Your task to perform on an android device: Is it going to rain tomorrow? Image 0: 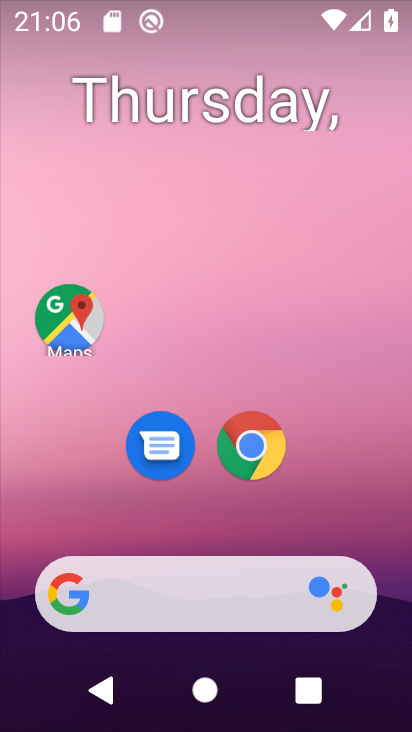
Step 0: click (301, 455)
Your task to perform on an android device: Is it going to rain tomorrow? Image 1: 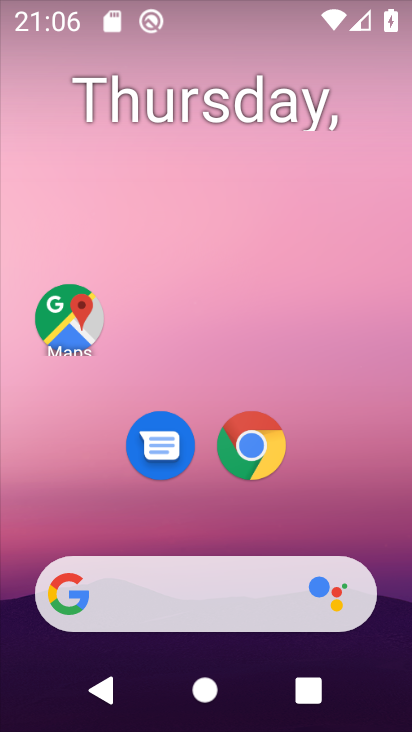
Step 1: click (241, 453)
Your task to perform on an android device: Is it going to rain tomorrow? Image 2: 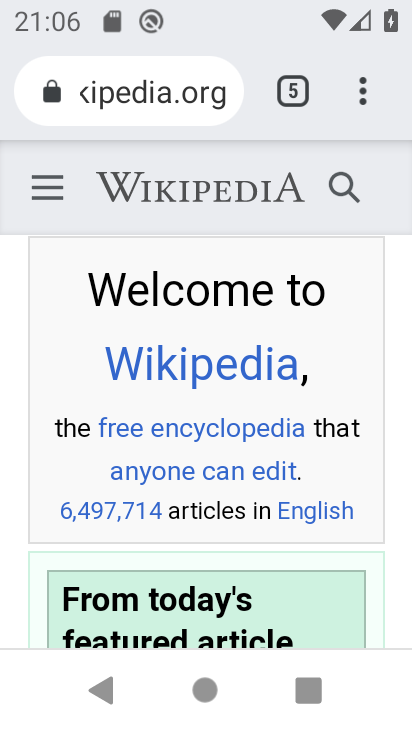
Step 2: click (281, 95)
Your task to perform on an android device: Is it going to rain tomorrow? Image 3: 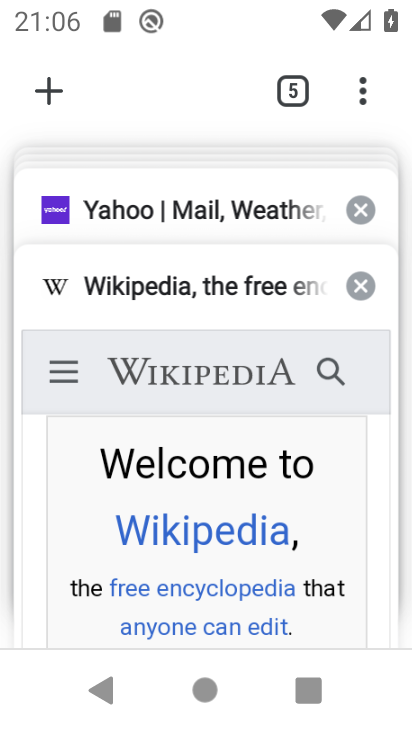
Step 3: click (49, 93)
Your task to perform on an android device: Is it going to rain tomorrow? Image 4: 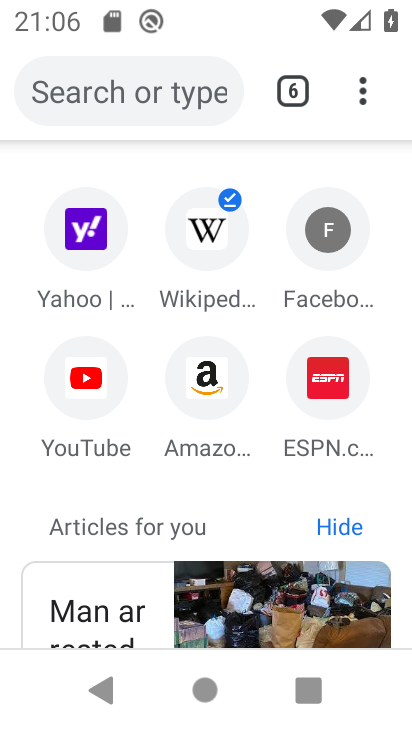
Step 4: click (145, 95)
Your task to perform on an android device: Is it going to rain tomorrow? Image 5: 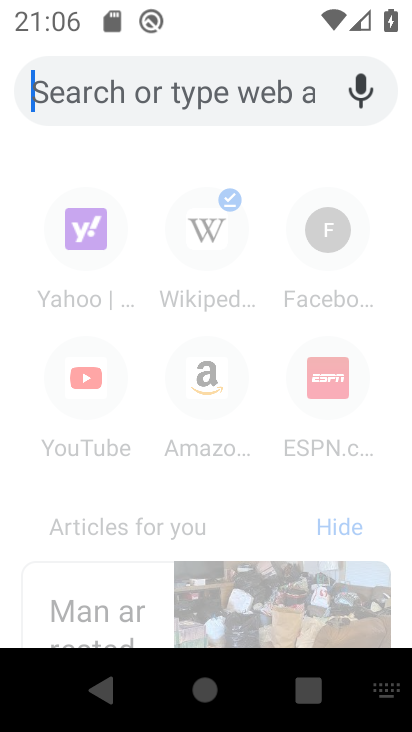
Step 5: type "is it going to rain tomorrow?"
Your task to perform on an android device: Is it going to rain tomorrow? Image 6: 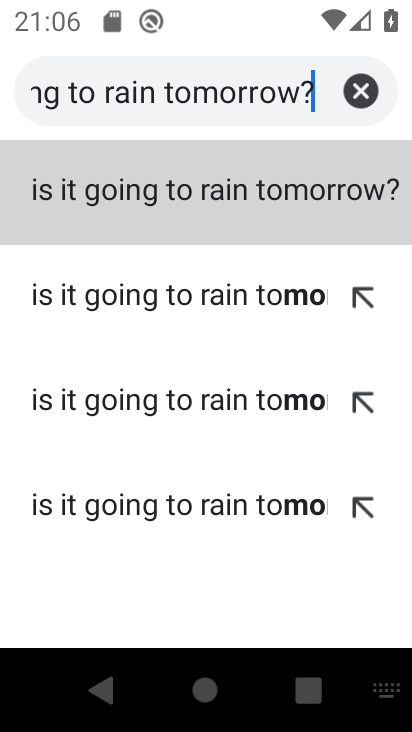
Step 6: click (148, 213)
Your task to perform on an android device: Is it going to rain tomorrow? Image 7: 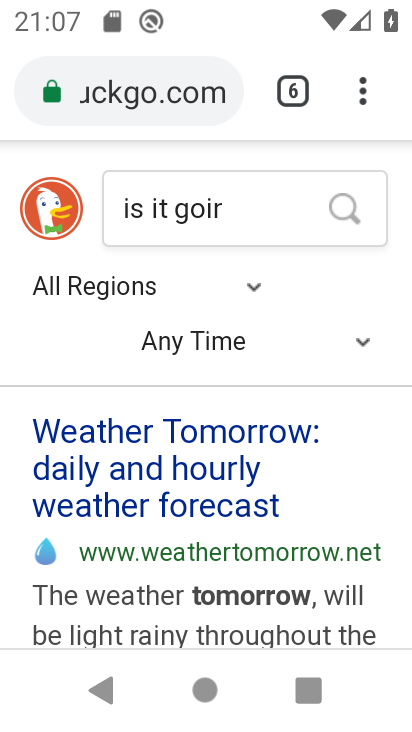
Step 7: drag from (255, 569) to (226, 234)
Your task to perform on an android device: Is it going to rain tomorrow? Image 8: 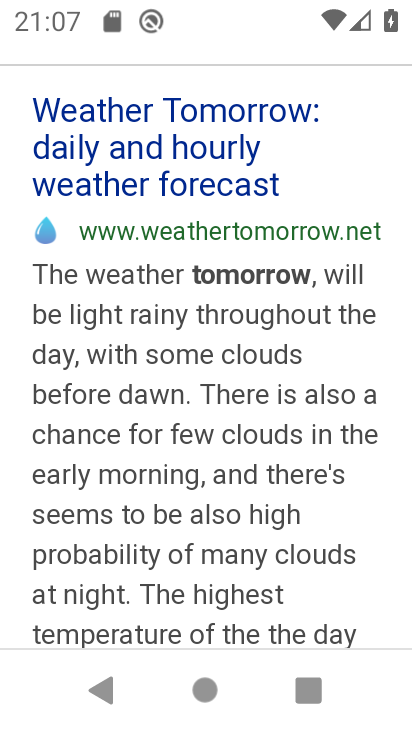
Step 8: click (159, 183)
Your task to perform on an android device: Is it going to rain tomorrow? Image 9: 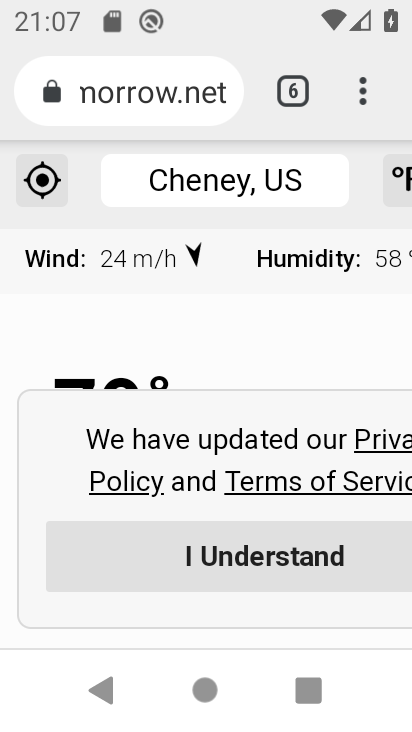
Step 9: click (223, 546)
Your task to perform on an android device: Is it going to rain tomorrow? Image 10: 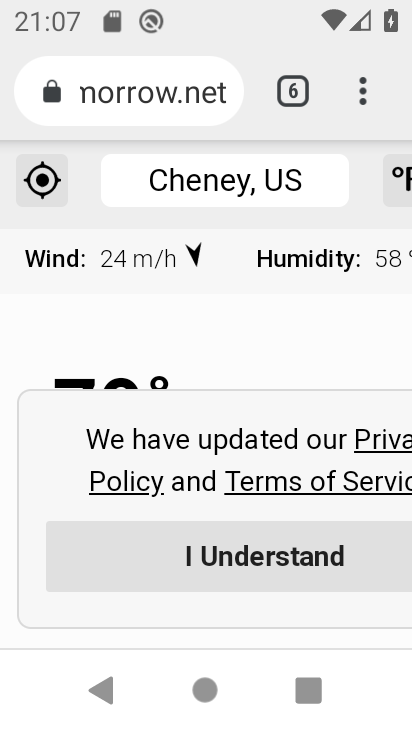
Step 10: drag from (235, 375) to (232, 157)
Your task to perform on an android device: Is it going to rain tomorrow? Image 11: 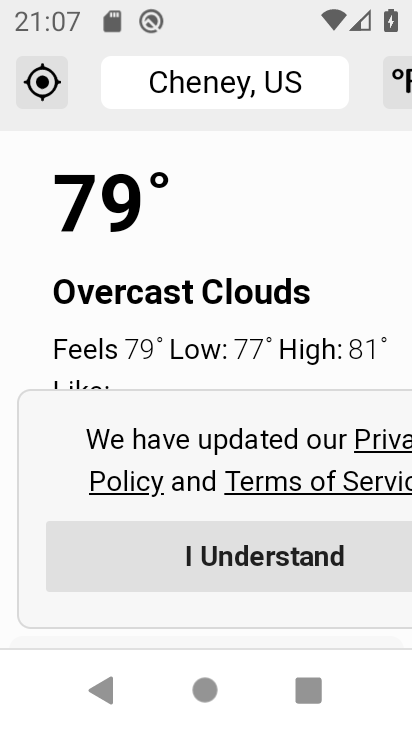
Step 11: click (252, 551)
Your task to perform on an android device: Is it going to rain tomorrow? Image 12: 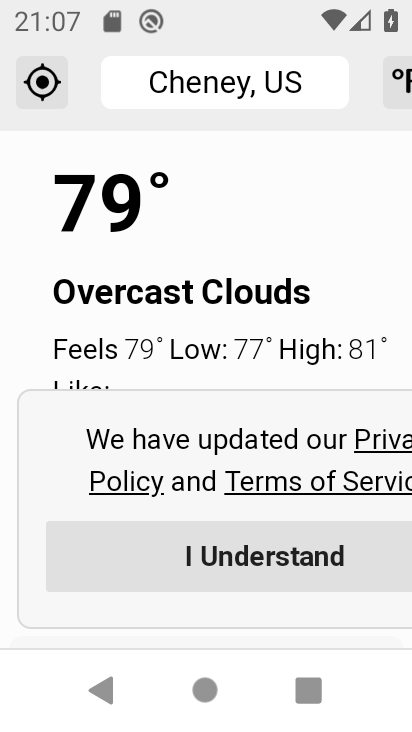
Step 12: task complete